Your task to perform on an android device: Open calendar and show me the fourth week of next month Image 0: 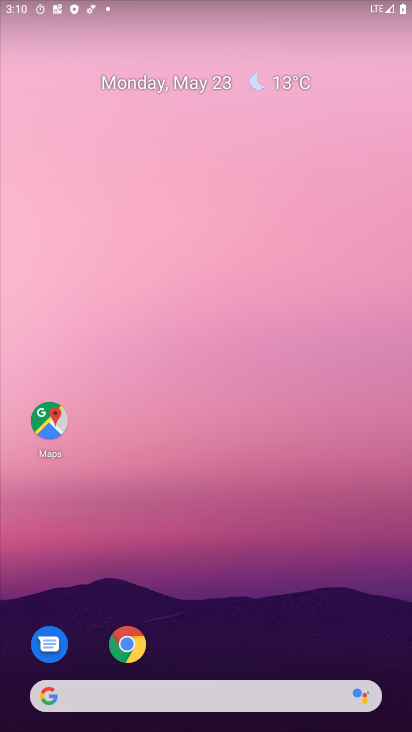
Step 0: drag from (188, 686) to (103, 19)
Your task to perform on an android device: Open calendar and show me the fourth week of next month Image 1: 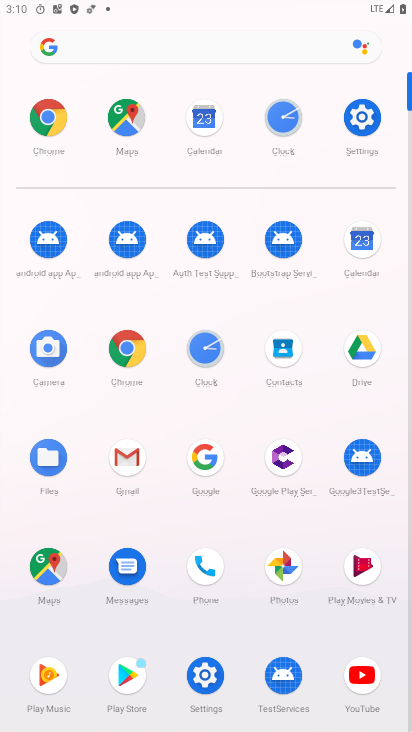
Step 1: click (352, 253)
Your task to perform on an android device: Open calendar and show me the fourth week of next month Image 2: 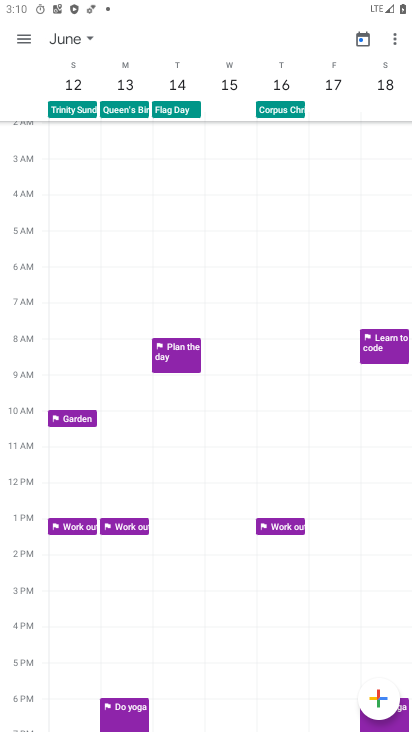
Step 2: task complete